Your task to perform on an android device: Is it going to rain today? Image 0: 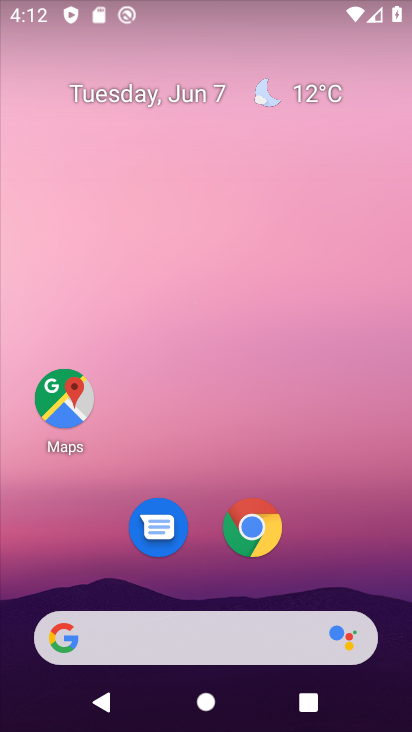
Step 0: drag from (345, 539) to (246, 118)
Your task to perform on an android device: Is it going to rain today? Image 1: 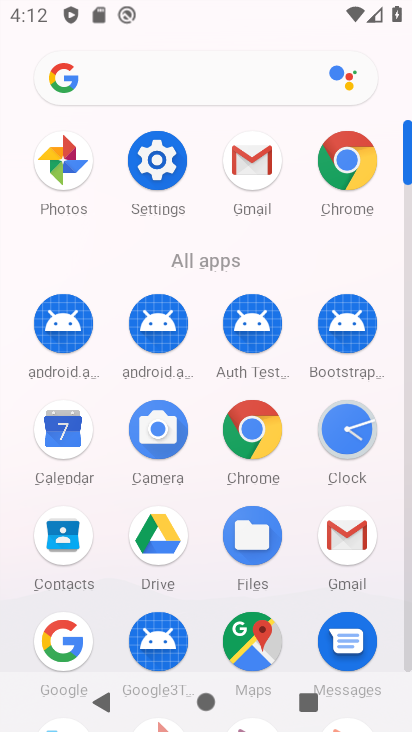
Step 1: click (58, 640)
Your task to perform on an android device: Is it going to rain today? Image 2: 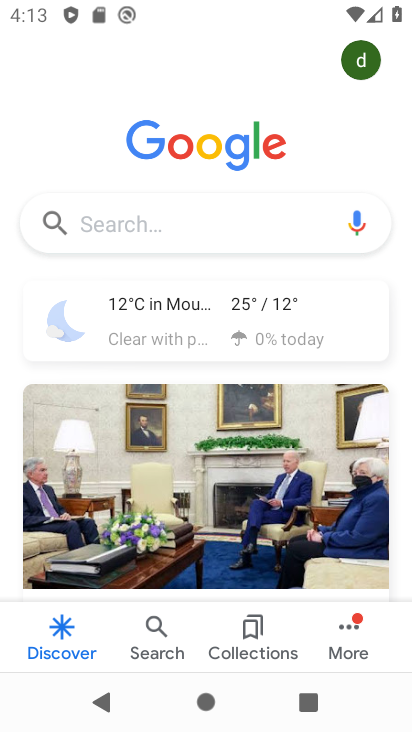
Step 2: click (192, 314)
Your task to perform on an android device: Is it going to rain today? Image 3: 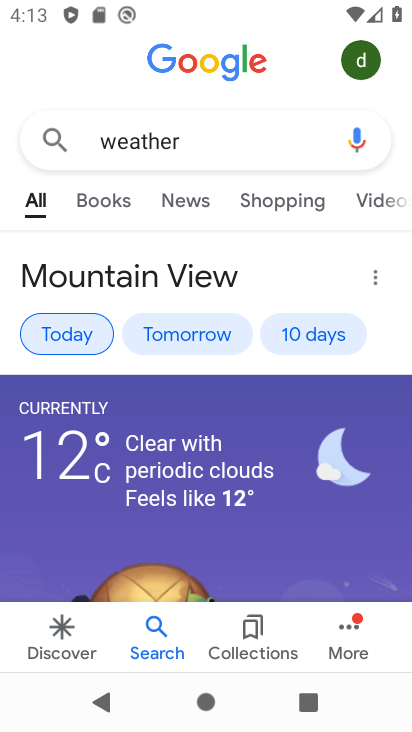
Step 3: task complete